Your task to perform on an android device: Search for vegetarian restaurants on Maps Image 0: 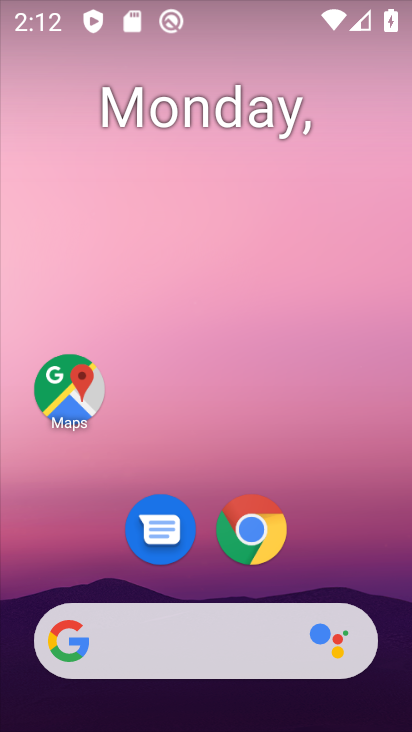
Step 0: click (77, 402)
Your task to perform on an android device: Search for vegetarian restaurants on Maps Image 1: 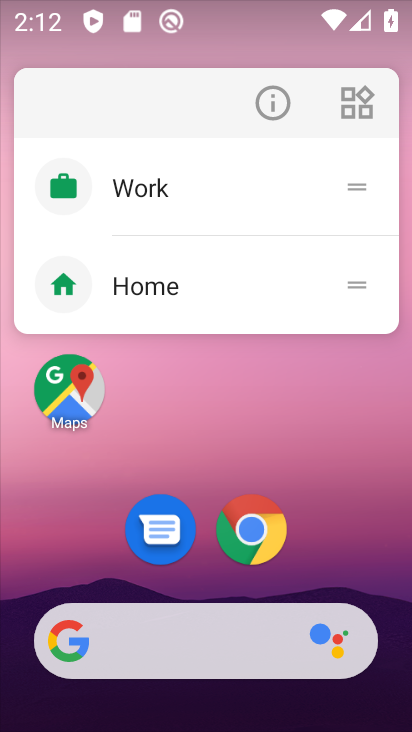
Step 1: click (91, 403)
Your task to perform on an android device: Search for vegetarian restaurants on Maps Image 2: 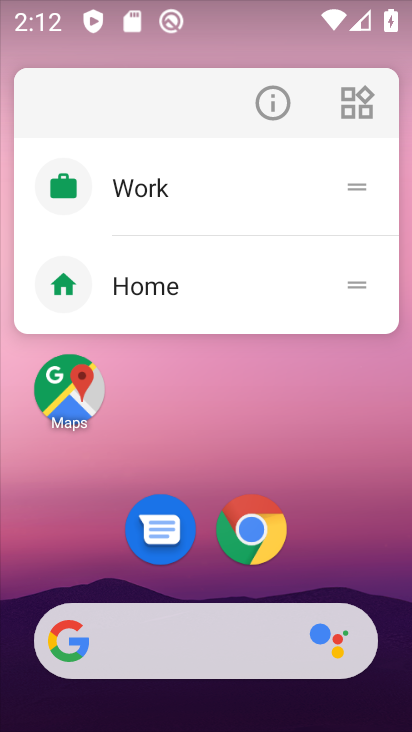
Step 2: click (78, 389)
Your task to perform on an android device: Search for vegetarian restaurants on Maps Image 3: 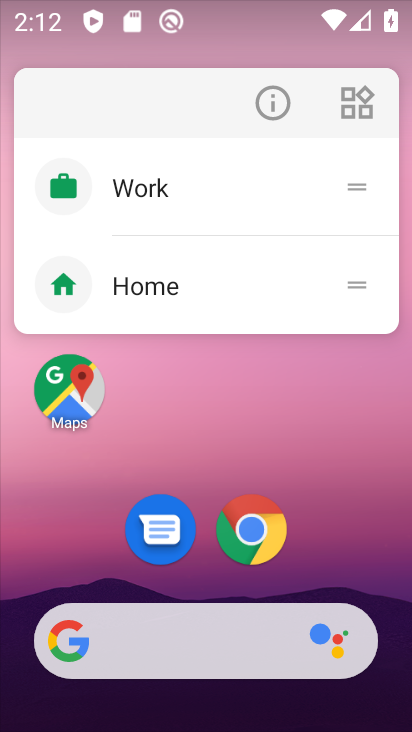
Step 3: click (80, 387)
Your task to perform on an android device: Search for vegetarian restaurants on Maps Image 4: 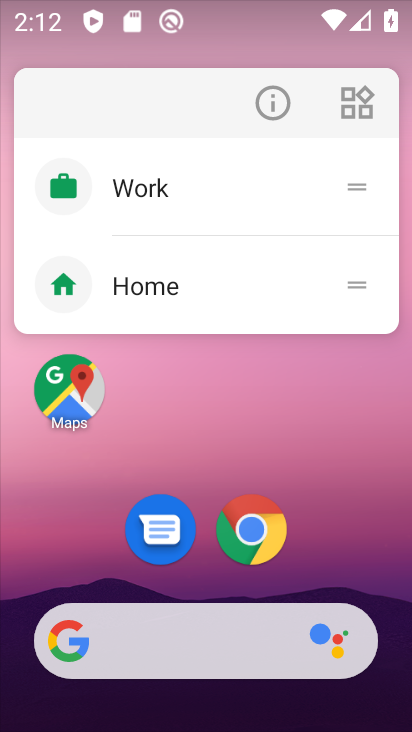
Step 4: click (73, 409)
Your task to perform on an android device: Search for vegetarian restaurants on Maps Image 5: 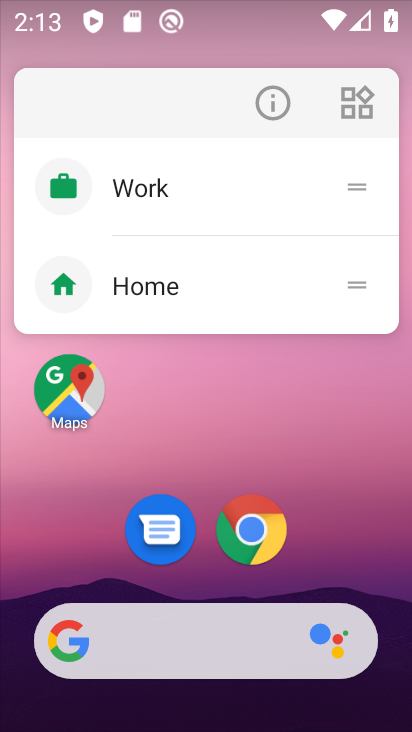
Step 5: click (84, 418)
Your task to perform on an android device: Search for vegetarian restaurants on Maps Image 6: 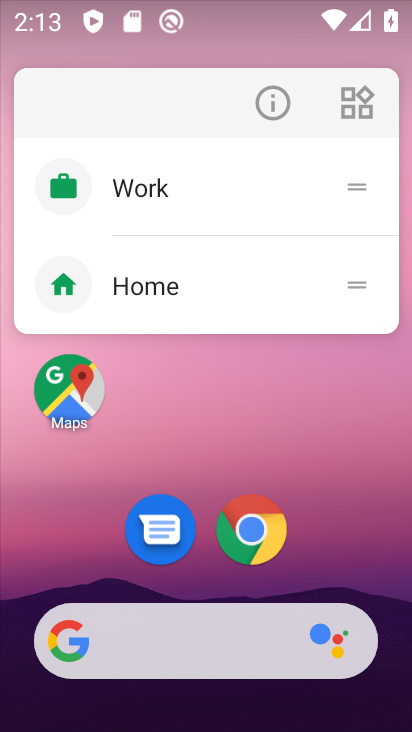
Step 6: click (91, 388)
Your task to perform on an android device: Search for vegetarian restaurants on Maps Image 7: 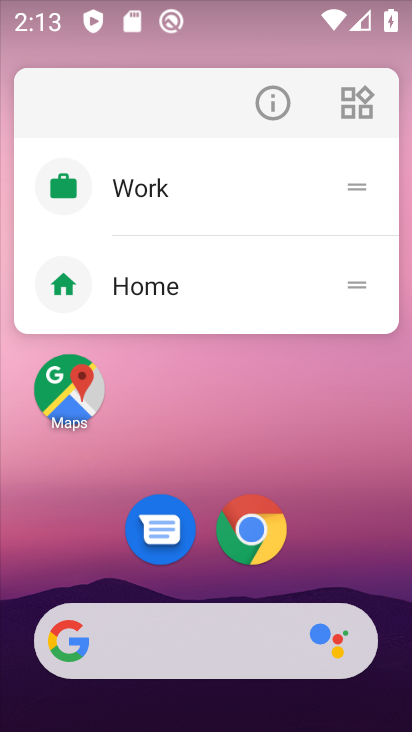
Step 7: click (68, 403)
Your task to perform on an android device: Search for vegetarian restaurants on Maps Image 8: 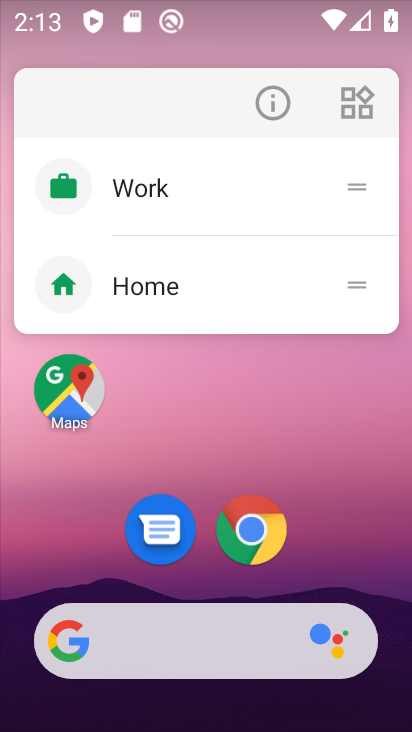
Step 8: click (67, 370)
Your task to perform on an android device: Search for vegetarian restaurants on Maps Image 9: 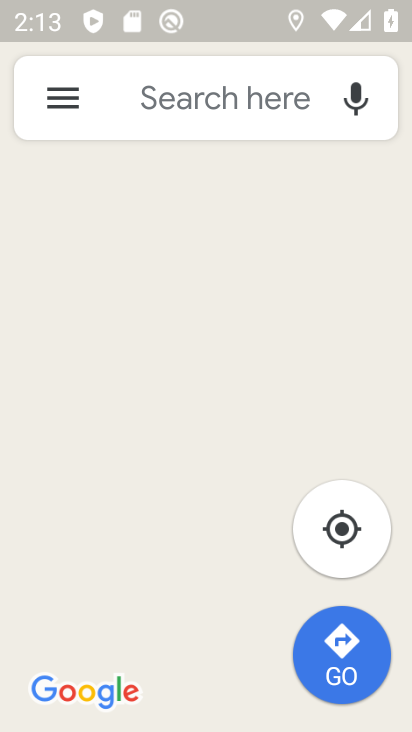
Step 9: click (208, 115)
Your task to perform on an android device: Search for vegetarian restaurants on Maps Image 10: 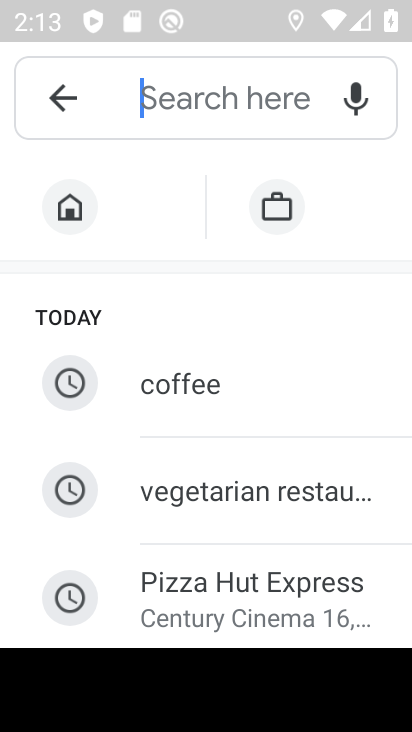
Step 10: type "vegetarian restaurants"
Your task to perform on an android device: Search for vegetarian restaurants on Maps Image 11: 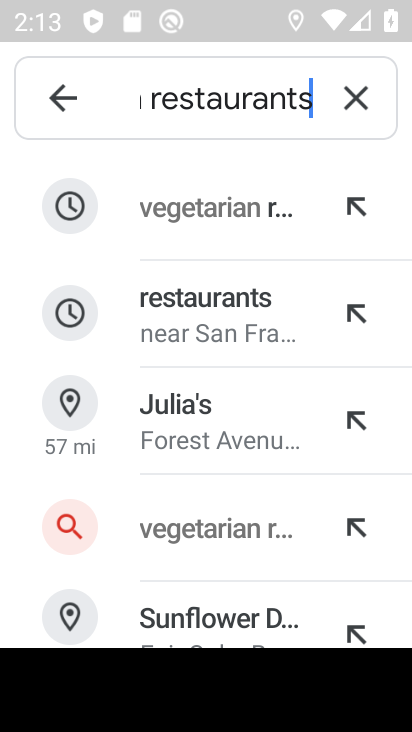
Step 11: click (245, 205)
Your task to perform on an android device: Search for vegetarian restaurants on Maps Image 12: 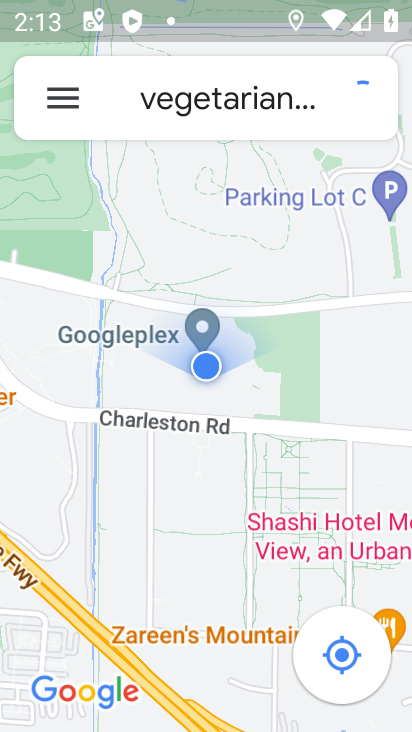
Step 12: click (252, 155)
Your task to perform on an android device: Search for vegetarian restaurants on Maps Image 13: 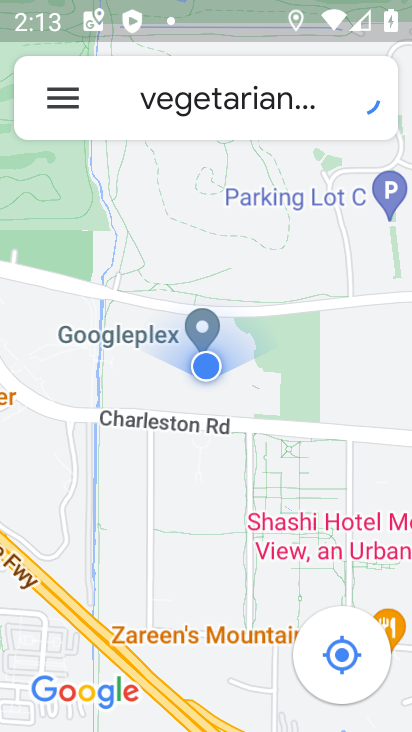
Step 13: click (247, 153)
Your task to perform on an android device: Search for vegetarian restaurants on Maps Image 14: 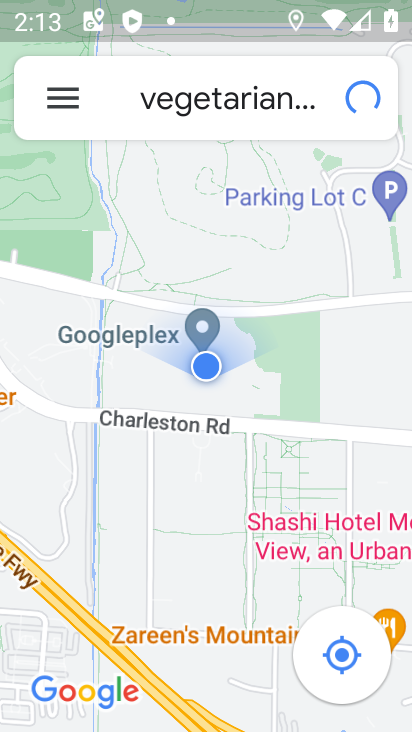
Step 14: click (247, 153)
Your task to perform on an android device: Search for vegetarian restaurants on Maps Image 15: 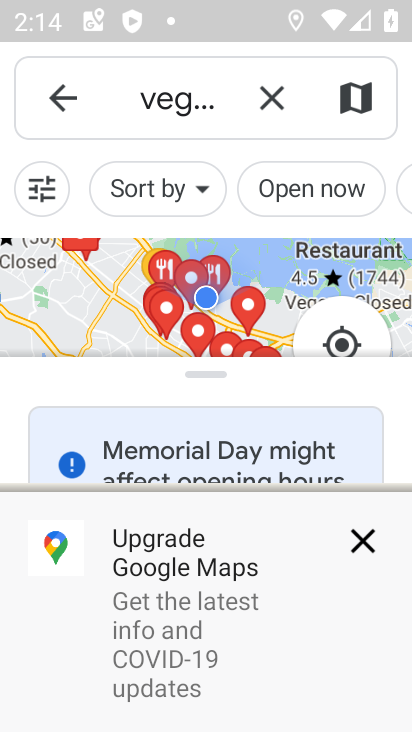
Step 15: click (376, 543)
Your task to perform on an android device: Search for vegetarian restaurants on Maps Image 16: 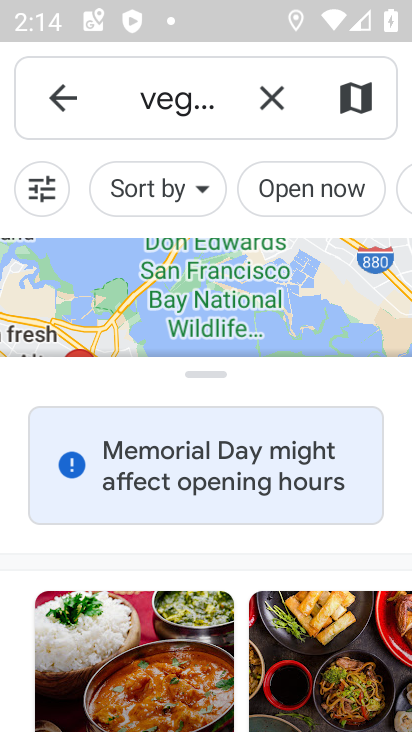
Step 16: task complete